Your task to perform on an android device: Open the calendar and show me this week's events Image 0: 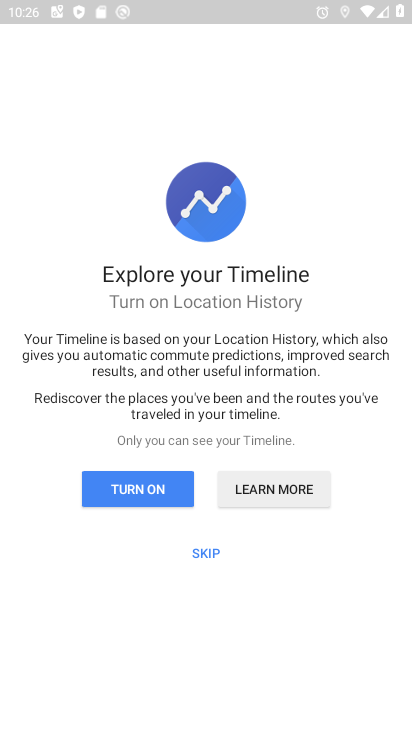
Step 0: press home button
Your task to perform on an android device: Open the calendar and show me this week's events Image 1: 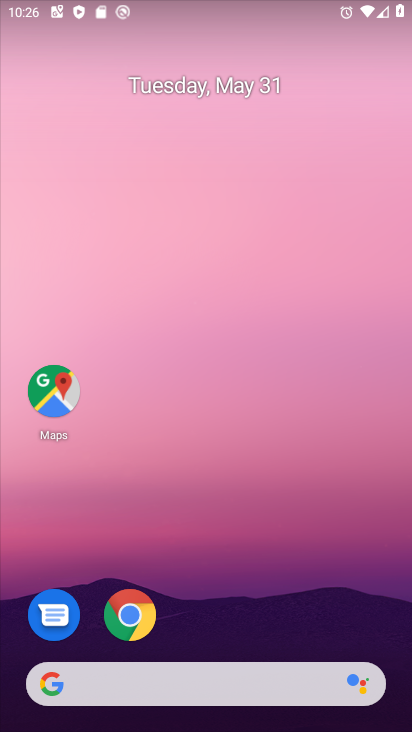
Step 1: drag from (280, 599) to (358, 3)
Your task to perform on an android device: Open the calendar and show me this week's events Image 2: 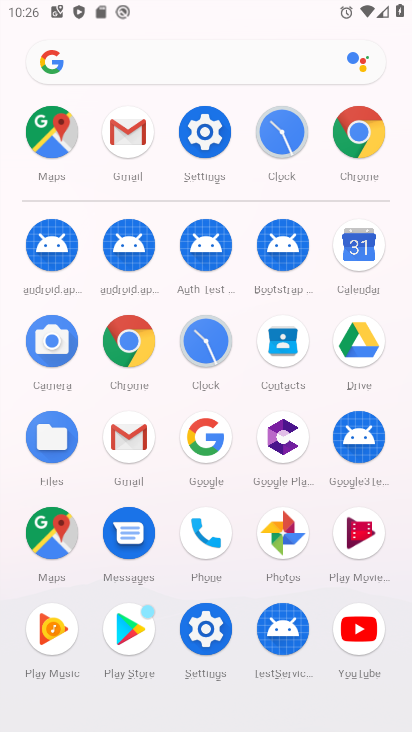
Step 2: click (365, 261)
Your task to perform on an android device: Open the calendar and show me this week's events Image 3: 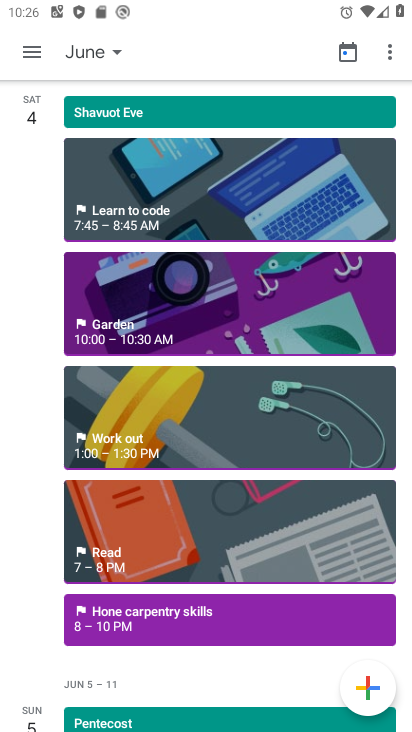
Step 3: click (91, 58)
Your task to perform on an android device: Open the calendar and show me this week's events Image 4: 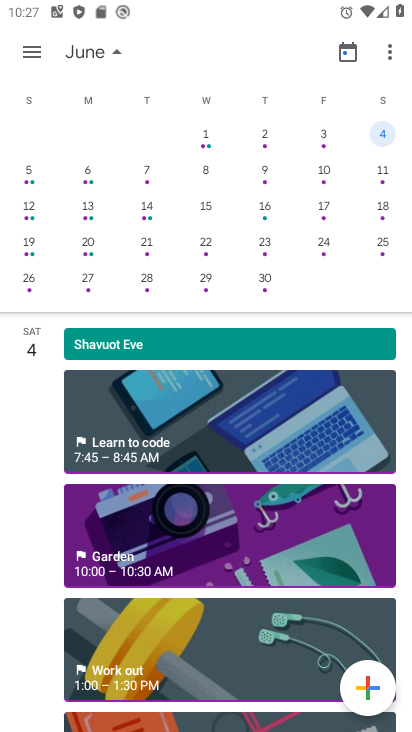
Step 4: click (24, 183)
Your task to perform on an android device: Open the calendar and show me this week's events Image 5: 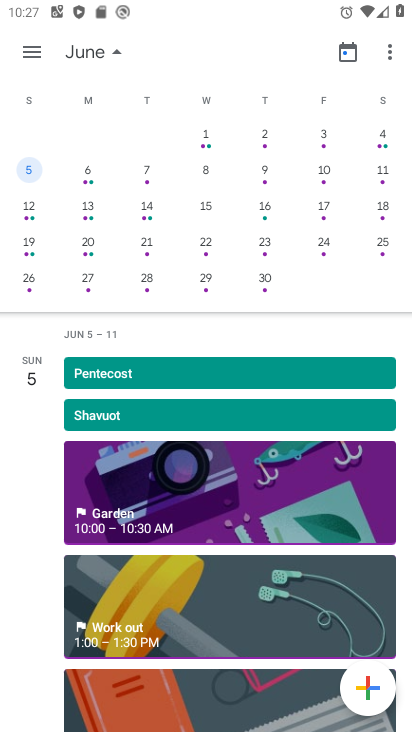
Step 5: task complete